Your task to perform on an android device: Go to Google Image 0: 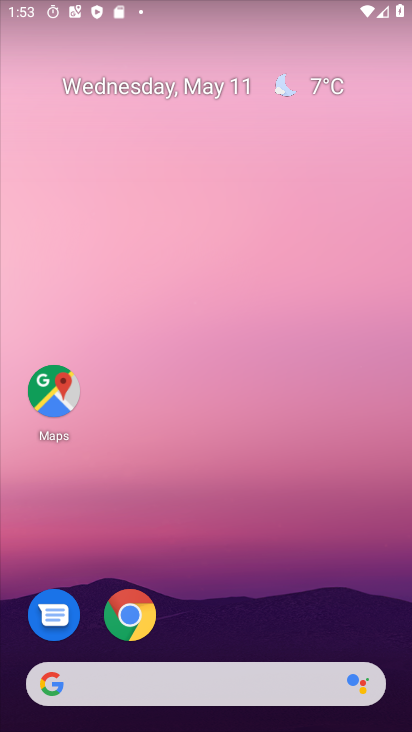
Step 0: drag from (212, 677) to (200, 118)
Your task to perform on an android device: Go to Google Image 1: 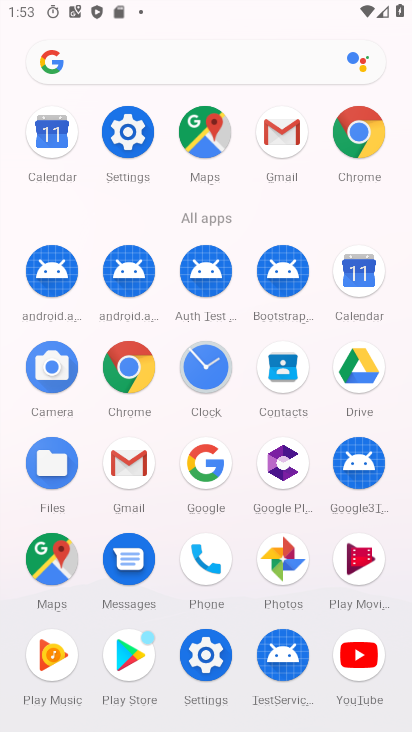
Step 1: click (208, 460)
Your task to perform on an android device: Go to Google Image 2: 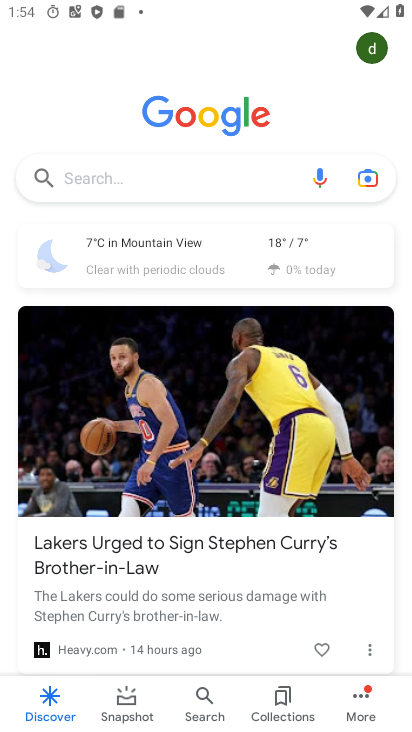
Step 2: task complete